Your task to perform on an android device: read, delete, or share a saved page in the chrome app Image 0: 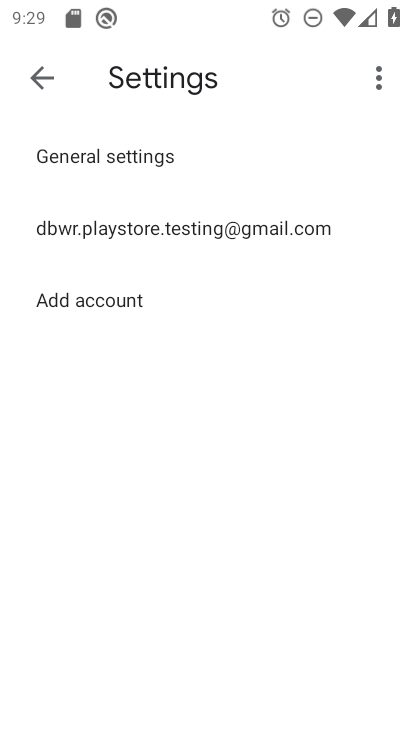
Step 0: press home button
Your task to perform on an android device: read, delete, or share a saved page in the chrome app Image 1: 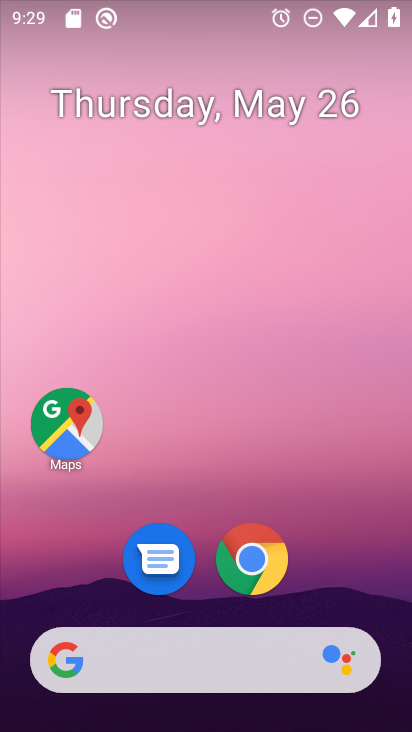
Step 1: click (260, 556)
Your task to perform on an android device: read, delete, or share a saved page in the chrome app Image 2: 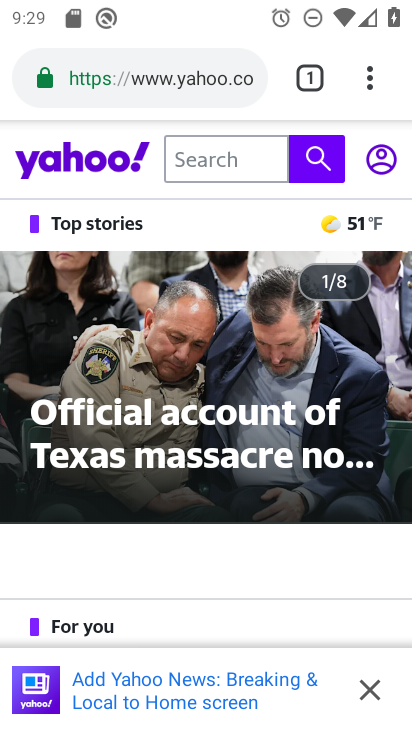
Step 2: click (360, 78)
Your task to perform on an android device: read, delete, or share a saved page in the chrome app Image 3: 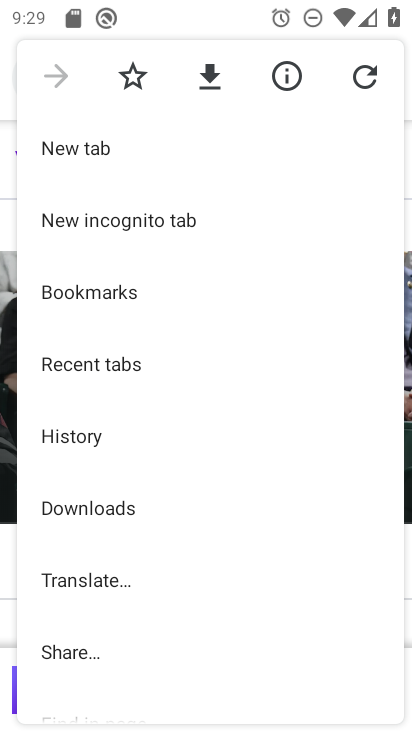
Step 3: click (124, 511)
Your task to perform on an android device: read, delete, or share a saved page in the chrome app Image 4: 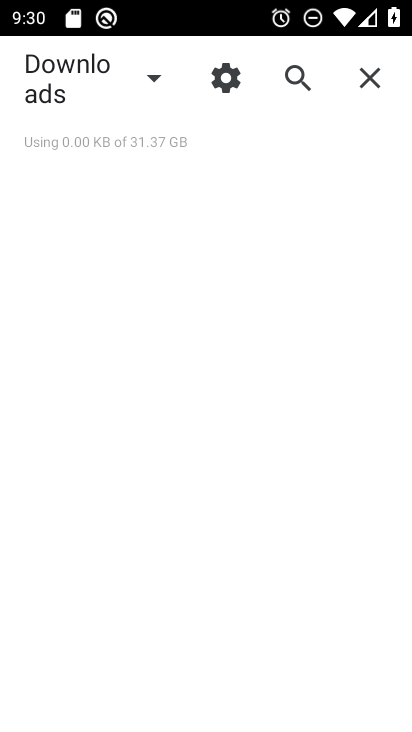
Step 4: task complete